Your task to perform on an android device: stop showing notifications on the lock screen Image 0: 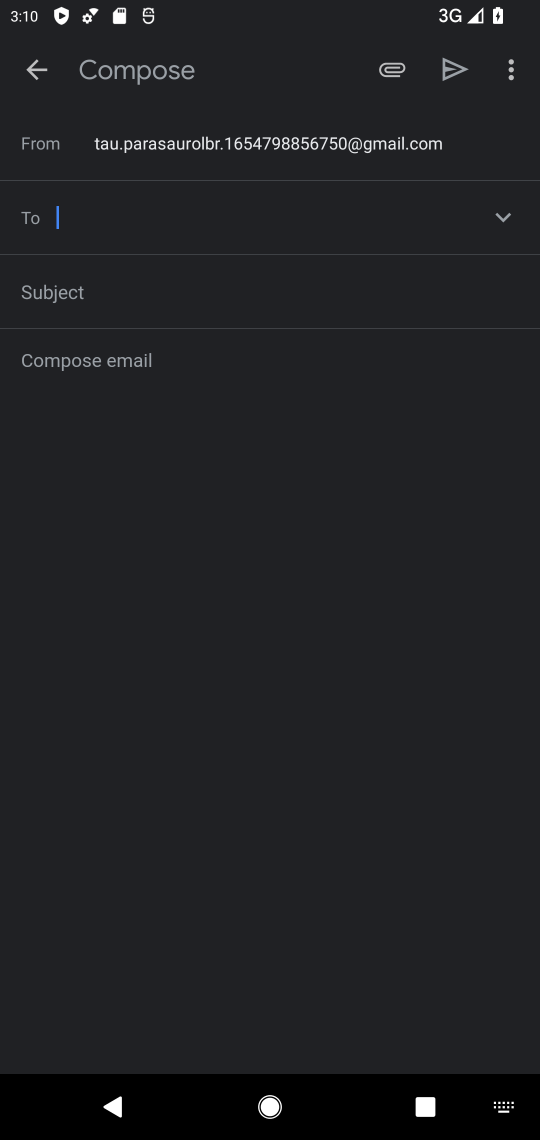
Step 0: press home button
Your task to perform on an android device: stop showing notifications on the lock screen Image 1: 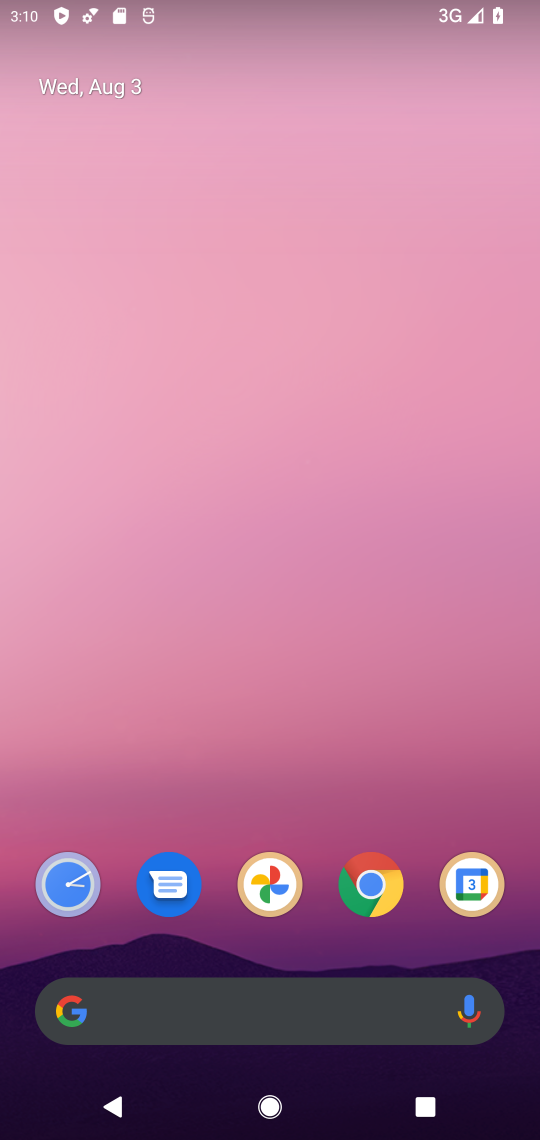
Step 1: drag from (212, 950) to (353, 287)
Your task to perform on an android device: stop showing notifications on the lock screen Image 2: 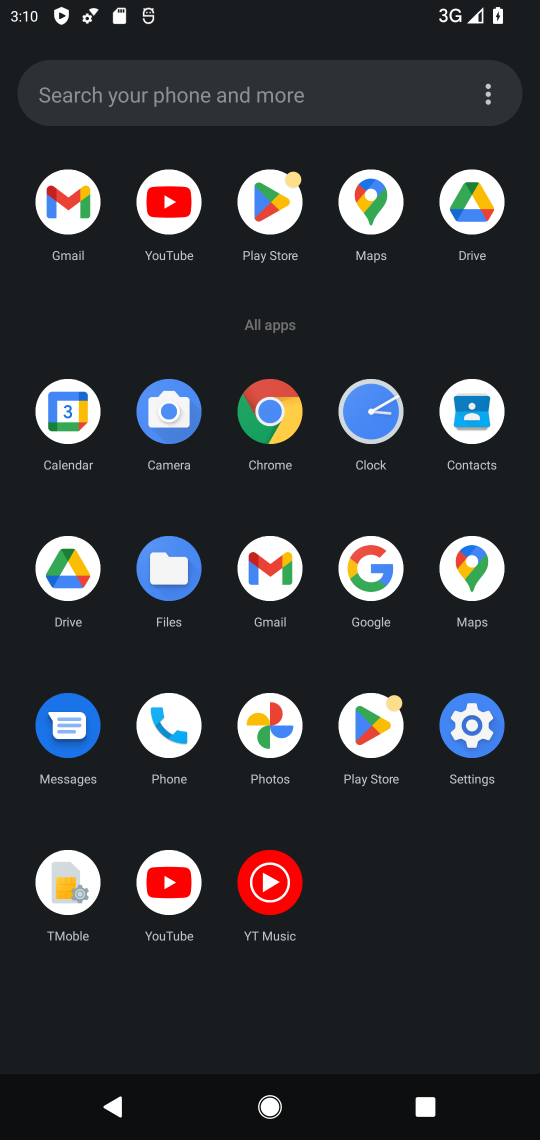
Step 2: click (471, 728)
Your task to perform on an android device: stop showing notifications on the lock screen Image 3: 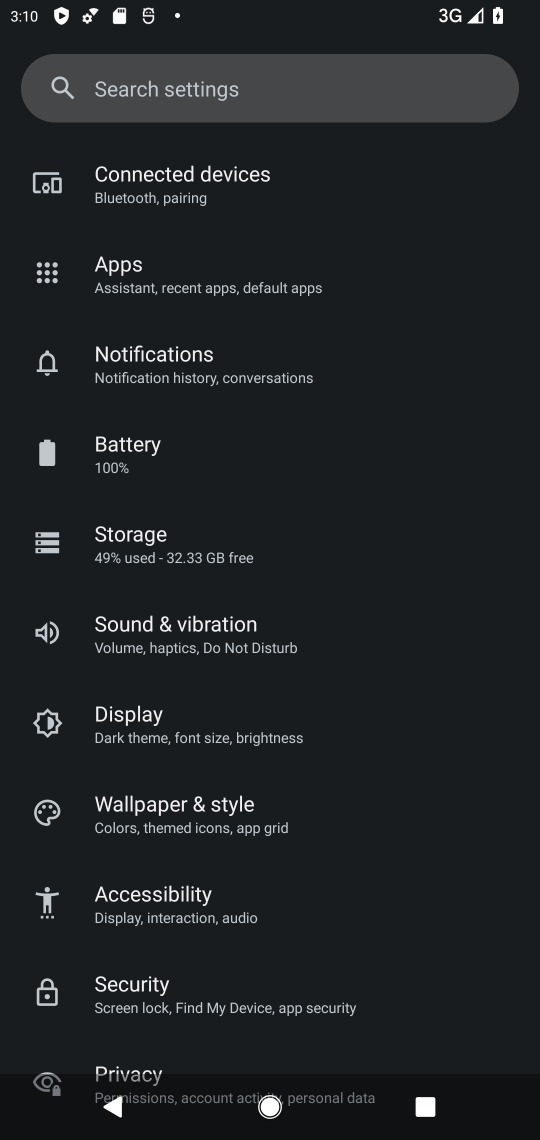
Step 3: click (183, 380)
Your task to perform on an android device: stop showing notifications on the lock screen Image 4: 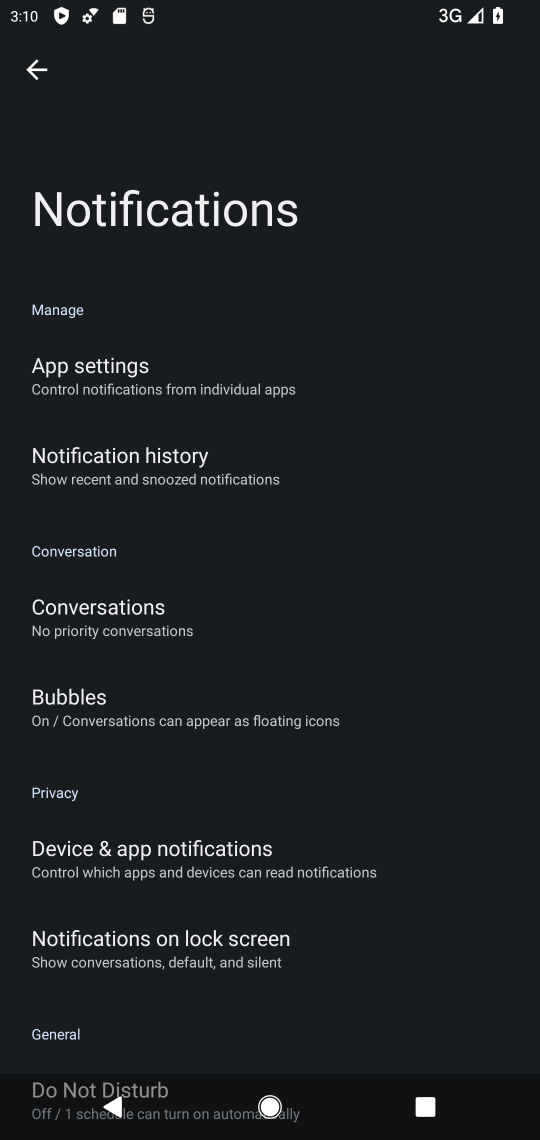
Step 4: click (185, 981)
Your task to perform on an android device: stop showing notifications on the lock screen Image 5: 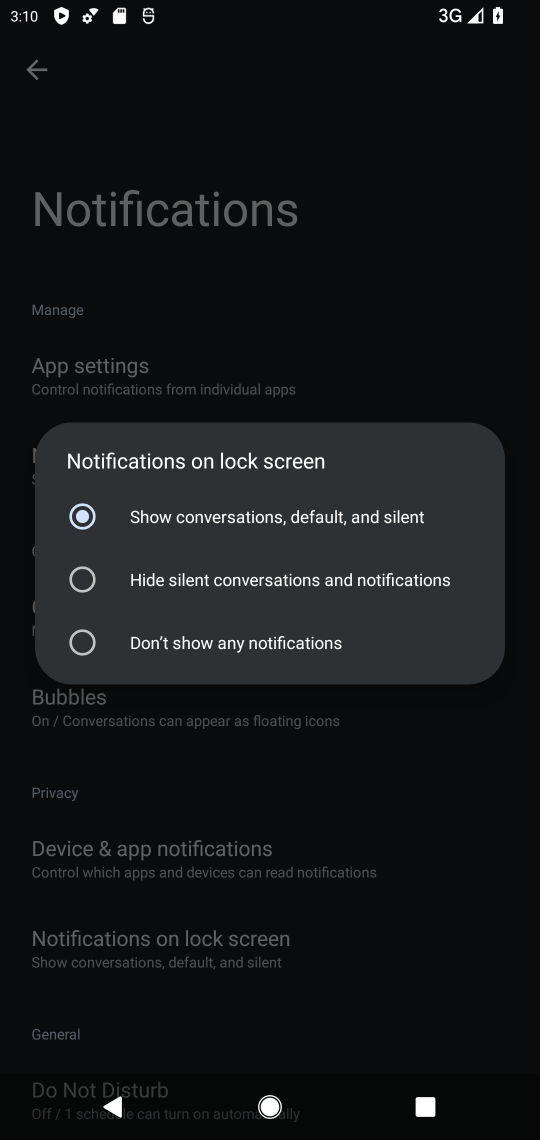
Step 5: click (181, 643)
Your task to perform on an android device: stop showing notifications on the lock screen Image 6: 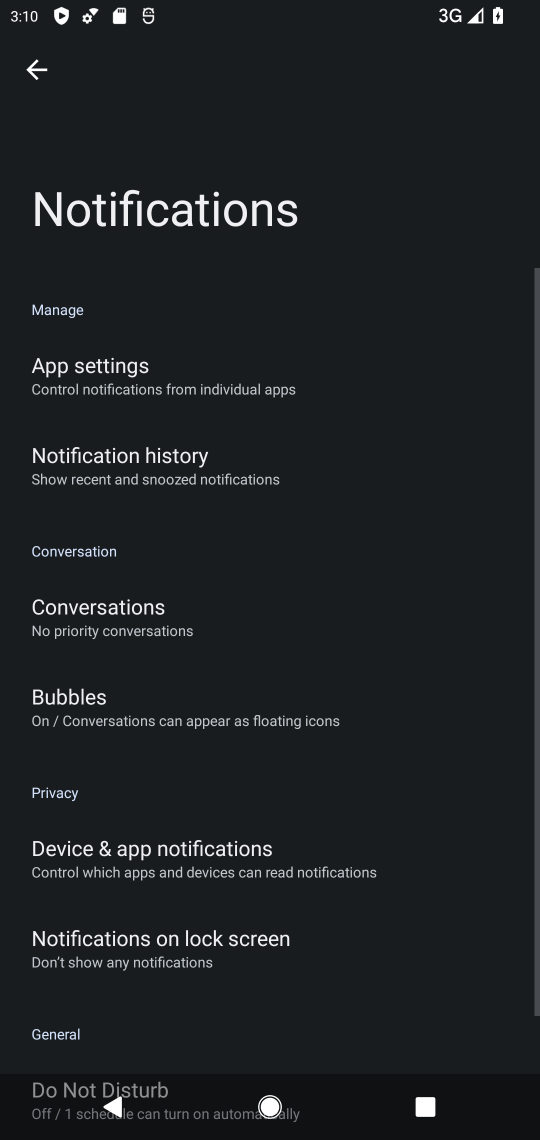
Step 6: task complete